Your task to perform on an android device: turn on sleep mode Image 0: 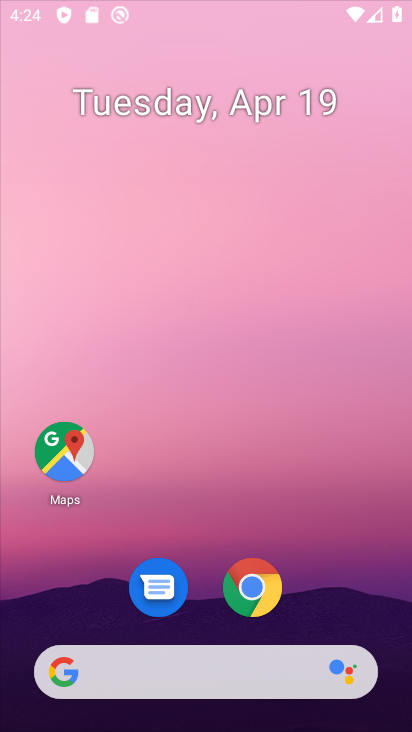
Step 0: click (158, 28)
Your task to perform on an android device: turn on sleep mode Image 1: 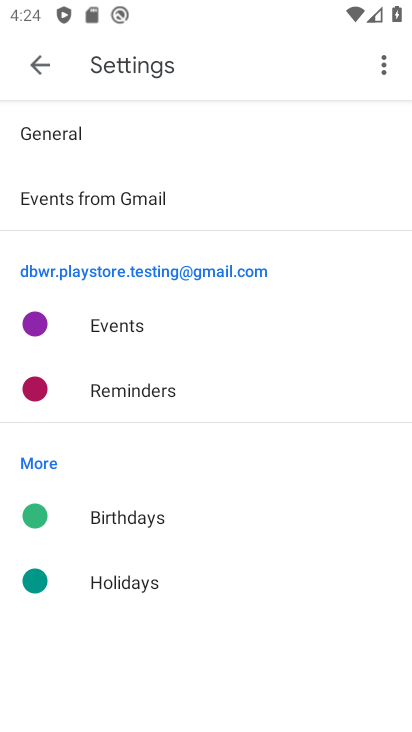
Step 1: press back button
Your task to perform on an android device: turn on sleep mode Image 2: 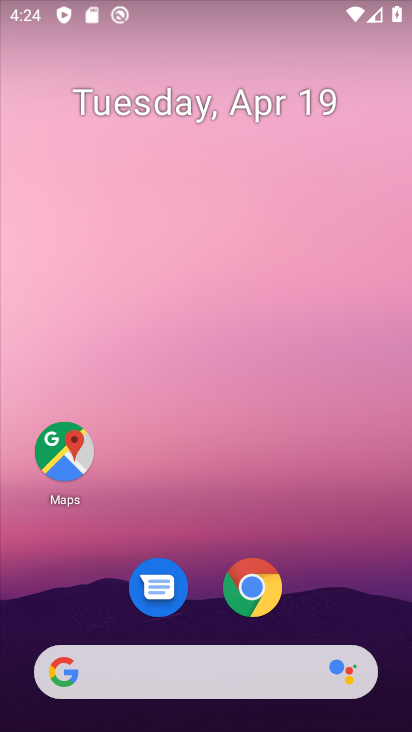
Step 2: drag from (356, 562) to (278, 20)
Your task to perform on an android device: turn on sleep mode Image 3: 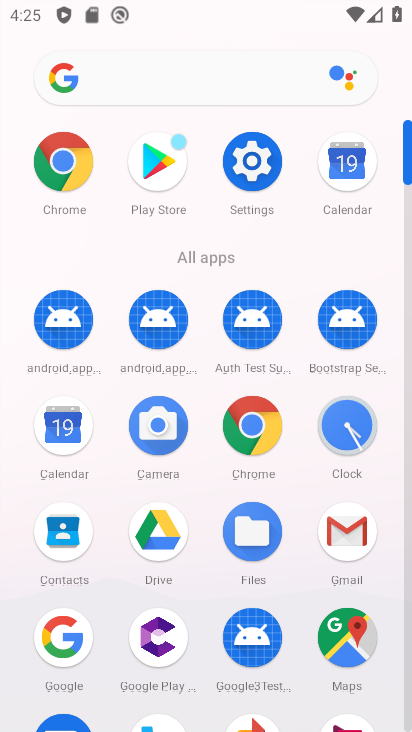
Step 3: drag from (12, 477) to (12, 223)
Your task to perform on an android device: turn on sleep mode Image 4: 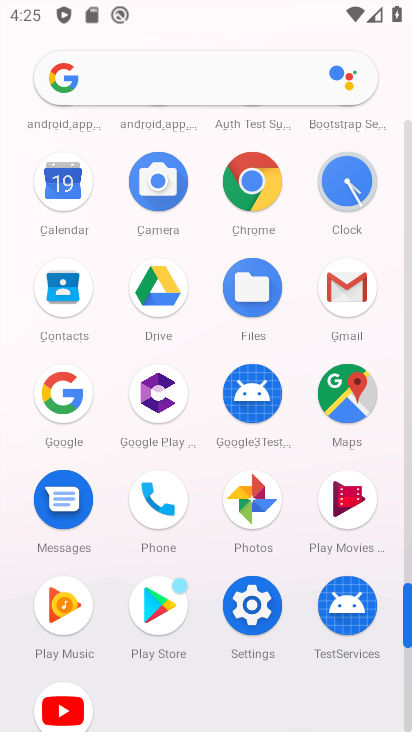
Step 4: click (252, 606)
Your task to perform on an android device: turn on sleep mode Image 5: 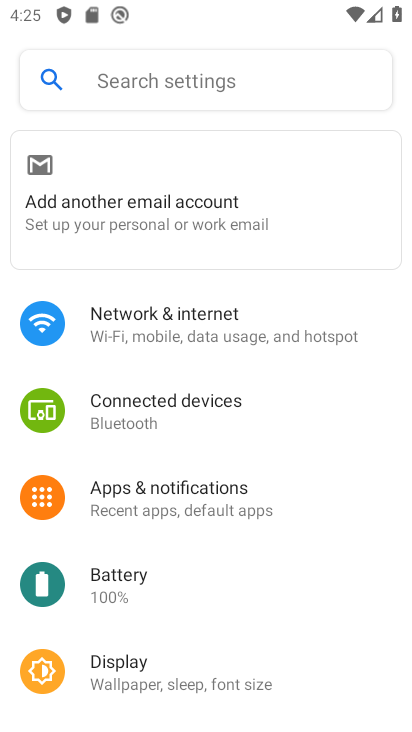
Step 5: click (263, 327)
Your task to perform on an android device: turn on sleep mode Image 6: 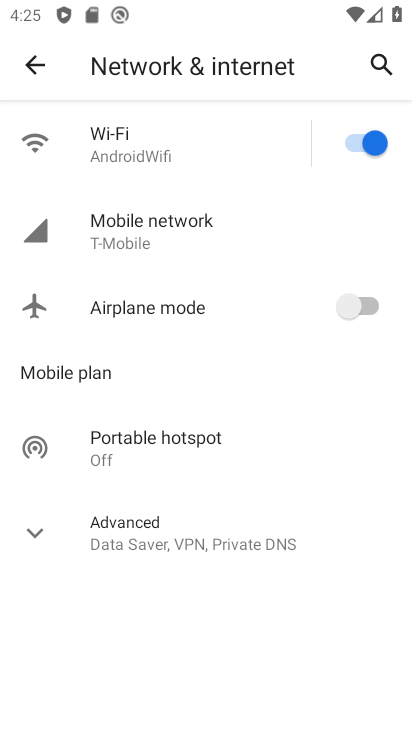
Step 6: click (33, 71)
Your task to perform on an android device: turn on sleep mode Image 7: 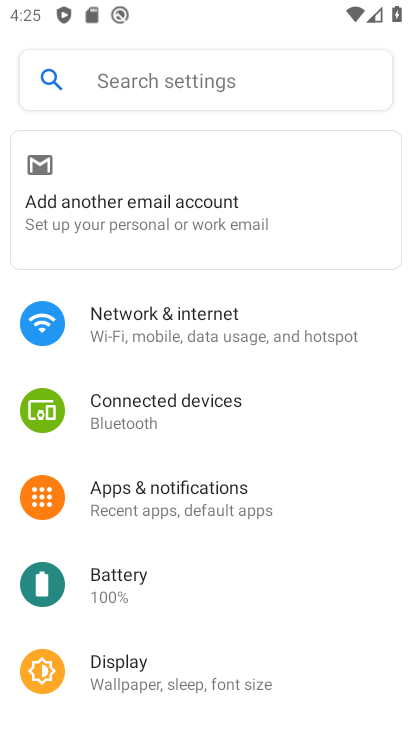
Step 7: click (203, 658)
Your task to perform on an android device: turn on sleep mode Image 8: 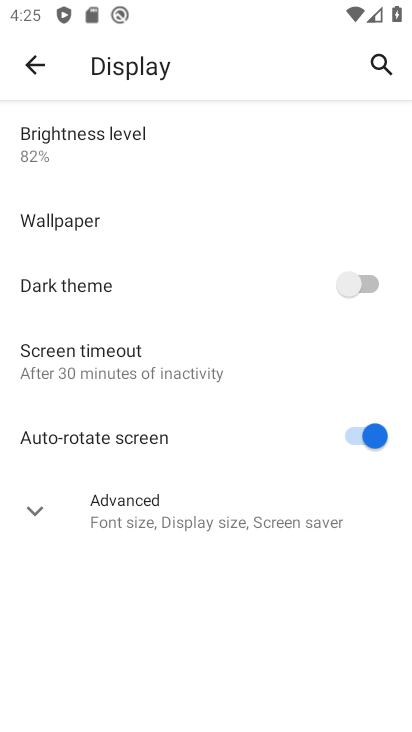
Step 8: click (88, 501)
Your task to perform on an android device: turn on sleep mode Image 9: 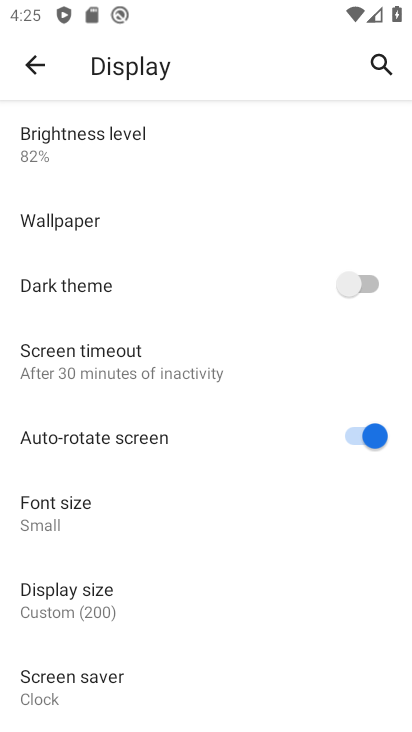
Step 9: task complete